Your task to perform on an android device: Open Reddit.com Image 0: 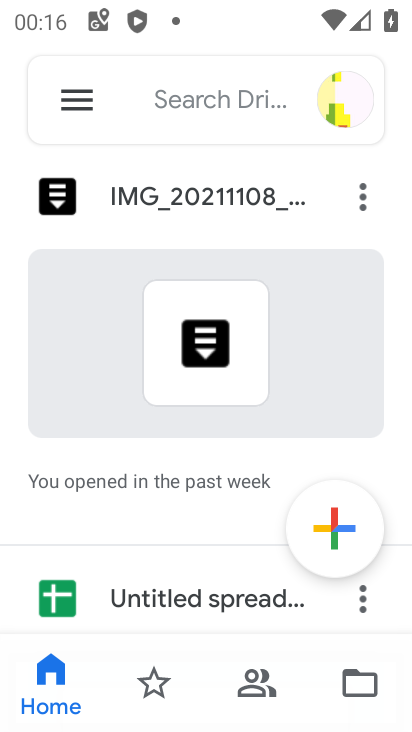
Step 0: press home button
Your task to perform on an android device: Open Reddit.com Image 1: 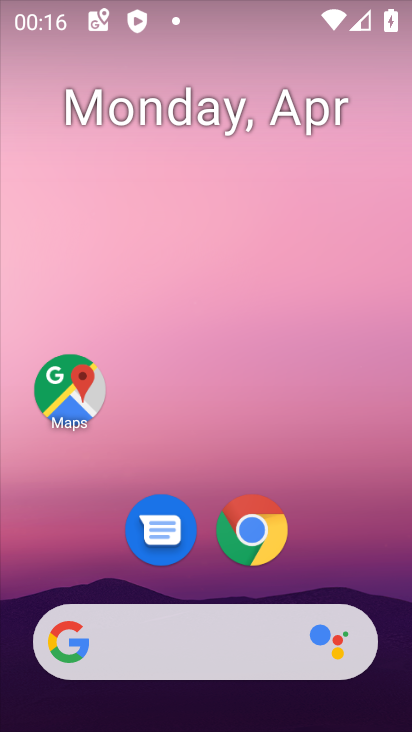
Step 1: drag from (221, 648) to (324, 121)
Your task to perform on an android device: Open Reddit.com Image 2: 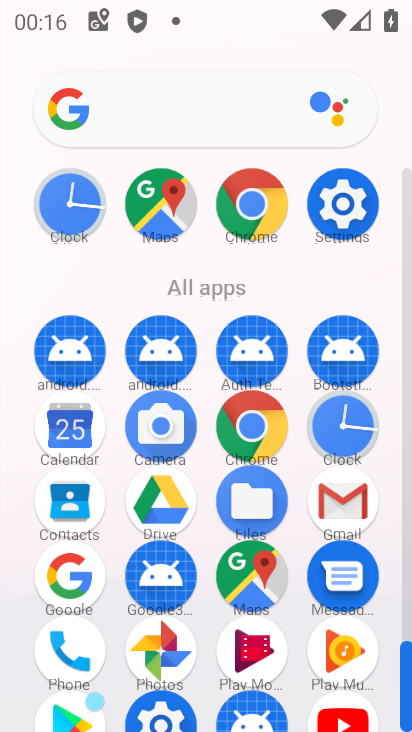
Step 2: click (266, 210)
Your task to perform on an android device: Open Reddit.com Image 3: 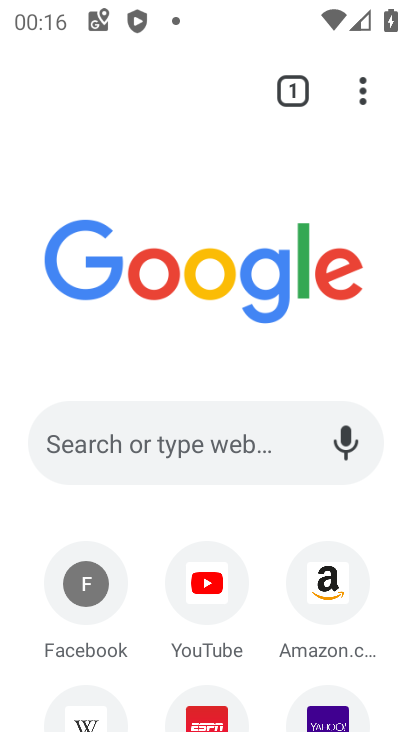
Step 3: click (120, 444)
Your task to perform on an android device: Open Reddit.com Image 4: 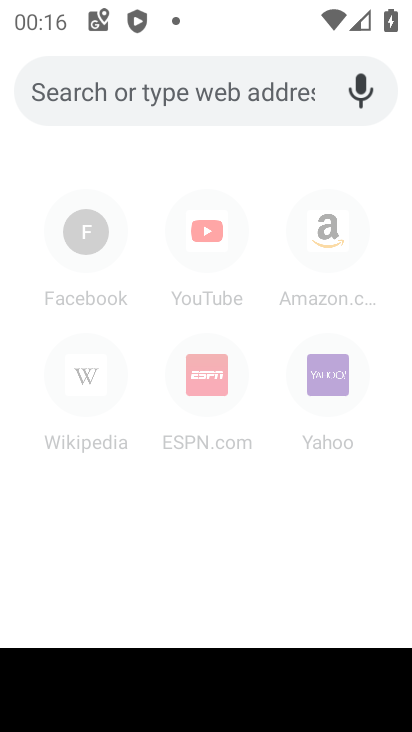
Step 4: type "reddit.com"
Your task to perform on an android device: Open Reddit.com Image 5: 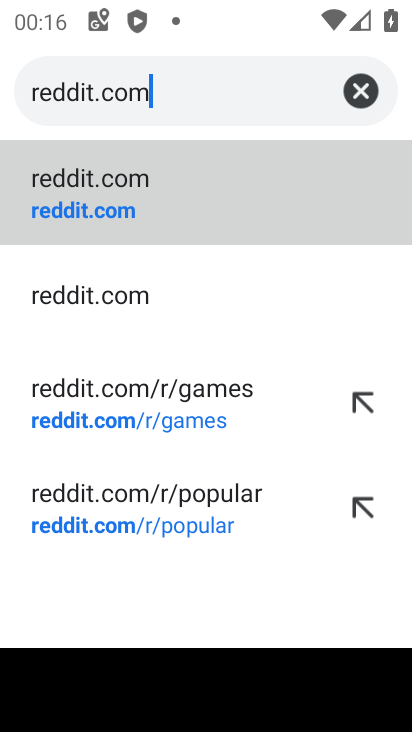
Step 5: click (125, 219)
Your task to perform on an android device: Open Reddit.com Image 6: 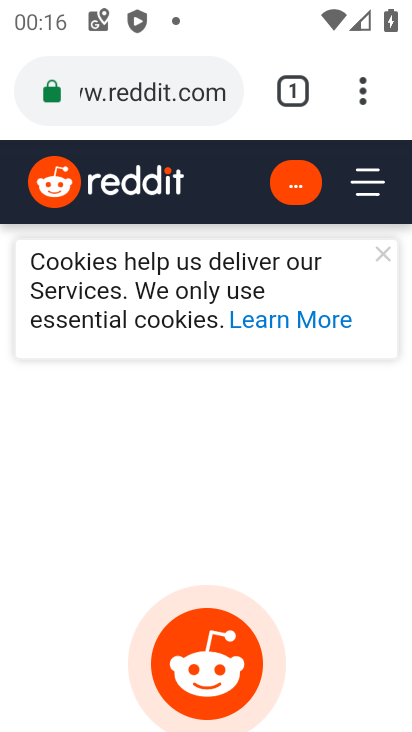
Step 6: task complete